Your task to perform on an android device: set default search engine in the chrome app Image 0: 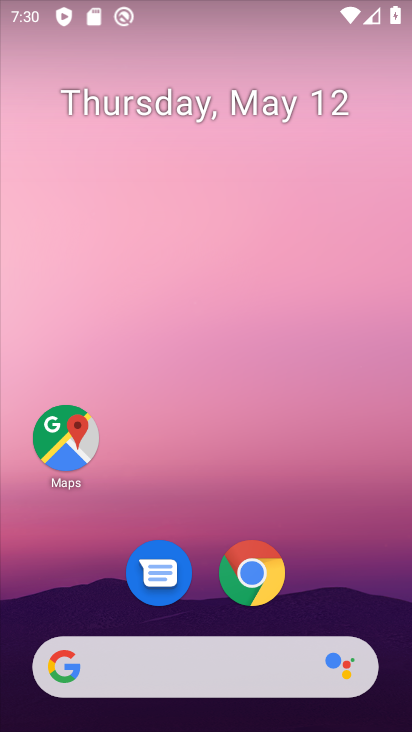
Step 0: click (258, 574)
Your task to perform on an android device: set default search engine in the chrome app Image 1: 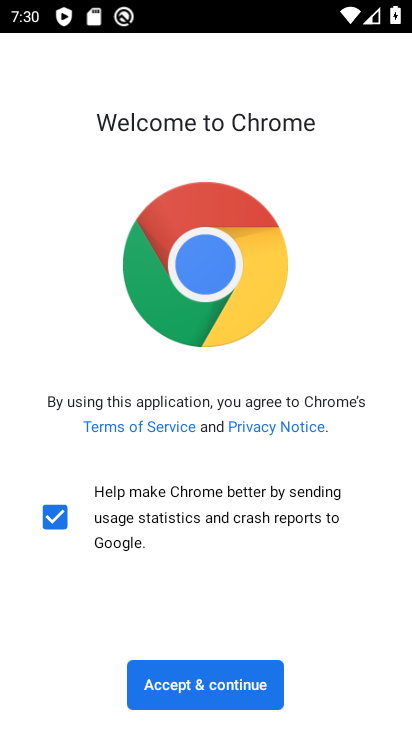
Step 1: click (180, 685)
Your task to perform on an android device: set default search engine in the chrome app Image 2: 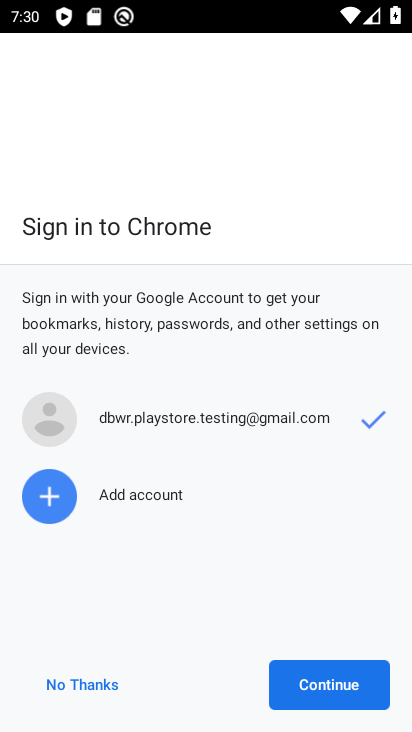
Step 2: click (319, 680)
Your task to perform on an android device: set default search engine in the chrome app Image 3: 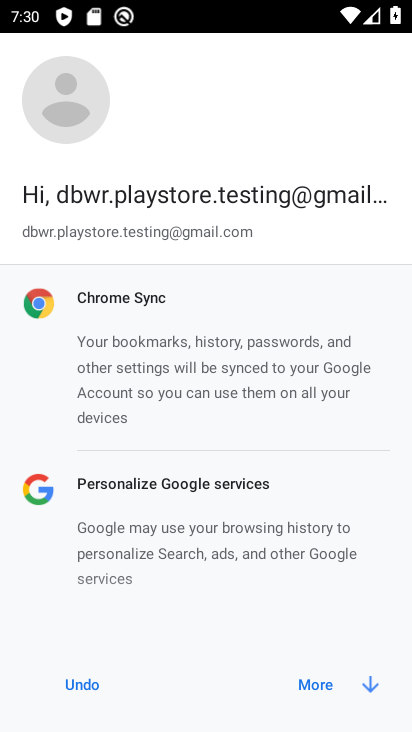
Step 3: click (319, 680)
Your task to perform on an android device: set default search engine in the chrome app Image 4: 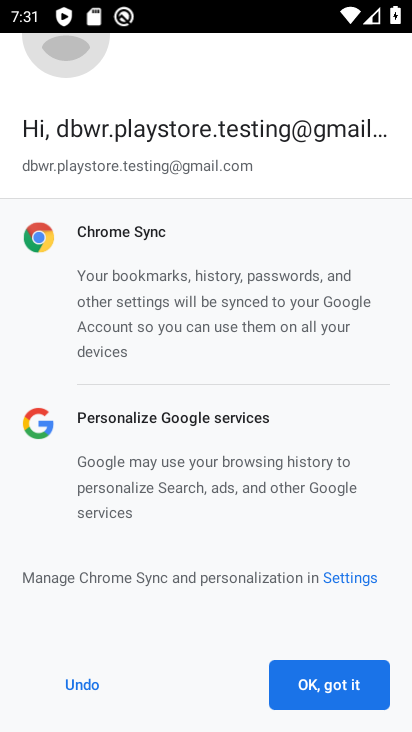
Step 4: click (319, 680)
Your task to perform on an android device: set default search engine in the chrome app Image 5: 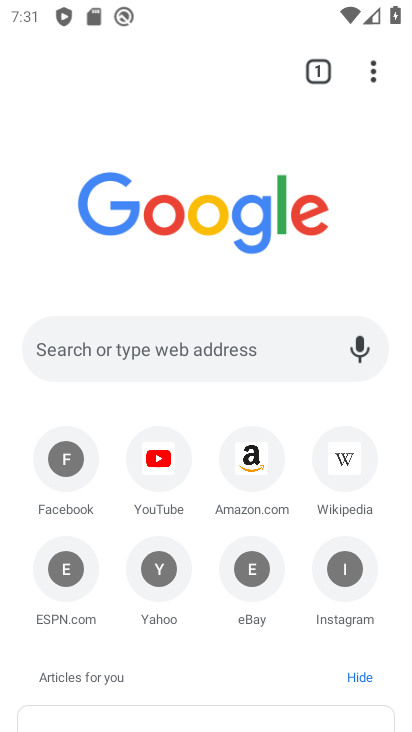
Step 5: click (366, 70)
Your task to perform on an android device: set default search engine in the chrome app Image 6: 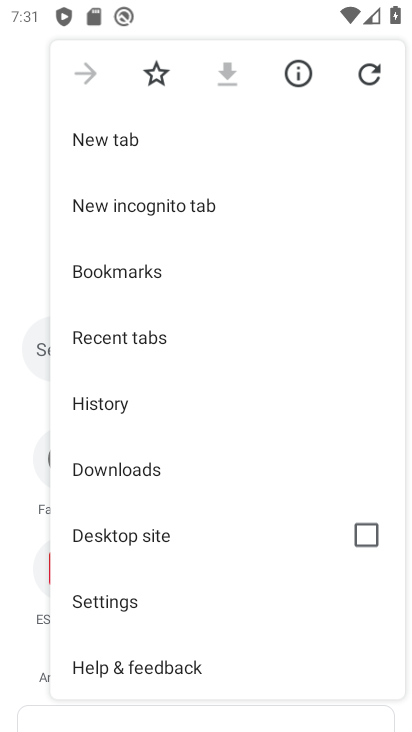
Step 6: click (111, 596)
Your task to perform on an android device: set default search engine in the chrome app Image 7: 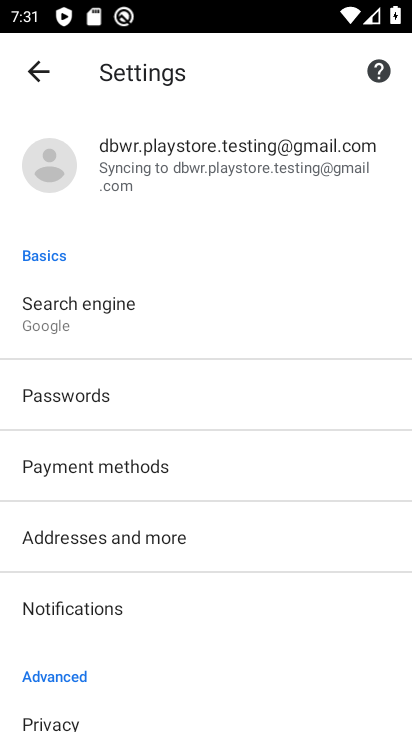
Step 7: click (87, 308)
Your task to perform on an android device: set default search engine in the chrome app Image 8: 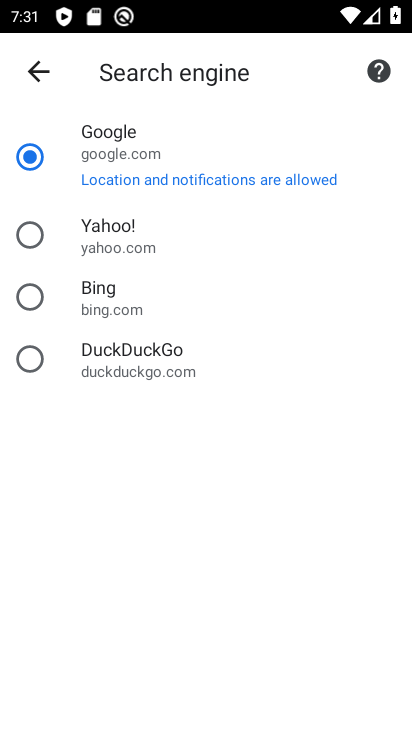
Step 8: click (36, 233)
Your task to perform on an android device: set default search engine in the chrome app Image 9: 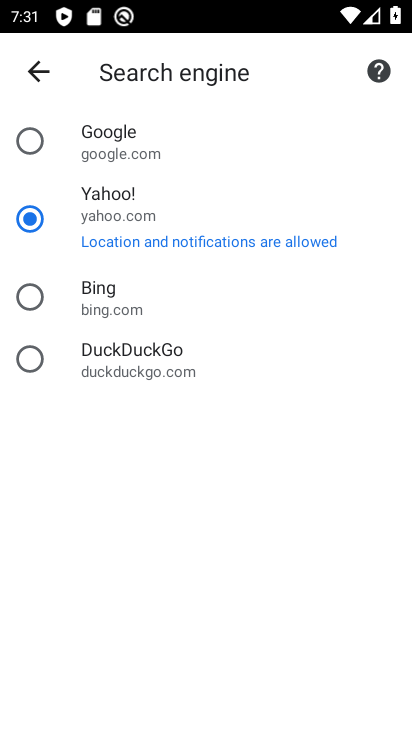
Step 9: task complete